Your task to perform on an android device: add a contact in the contacts app Image 0: 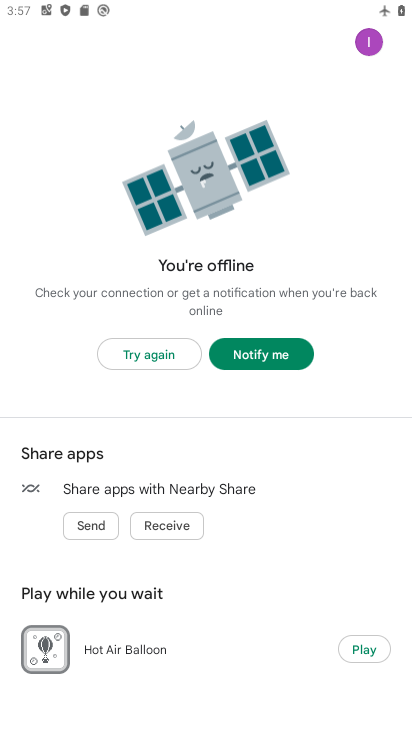
Step 0: press home button
Your task to perform on an android device: add a contact in the contacts app Image 1: 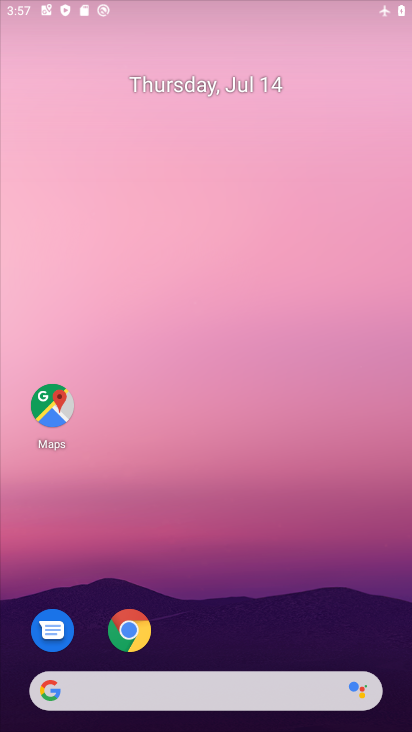
Step 1: drag from (251, 618) to (397, 25)
Your task to perform on an android device: add a contact in the contacts app Image 2: 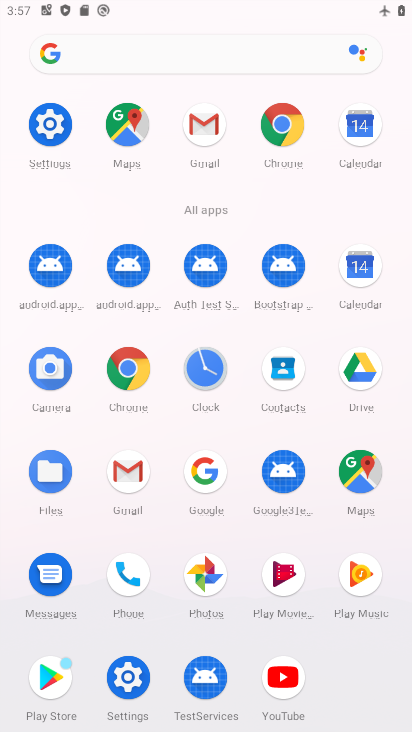
Step 2: click (290, 379)
Your task to perform on an android device: add a contact in the contacts app Image 3: 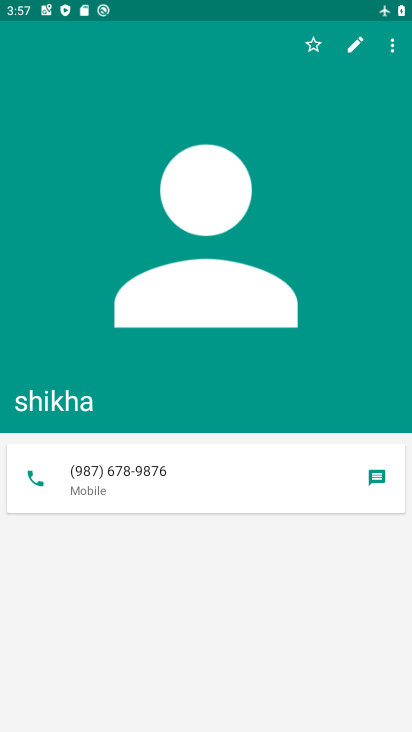
Step 3: press back button
Your task to perform on an android device: add a contact in the contacts app Image 4: 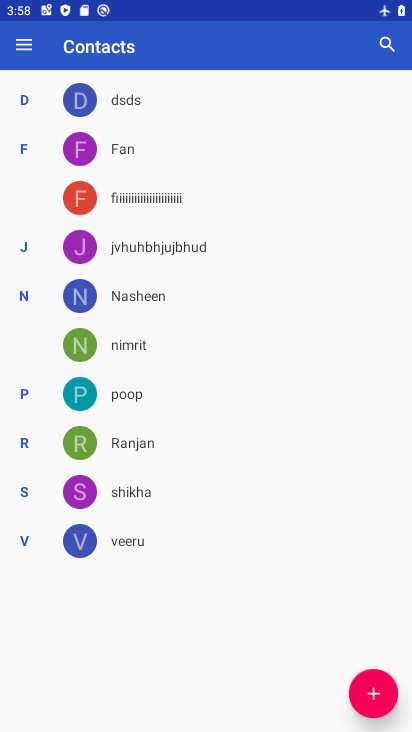
Step 4: click (371, 682)
Your task to perform on an android device: add a contact in the contacts app Image 5: 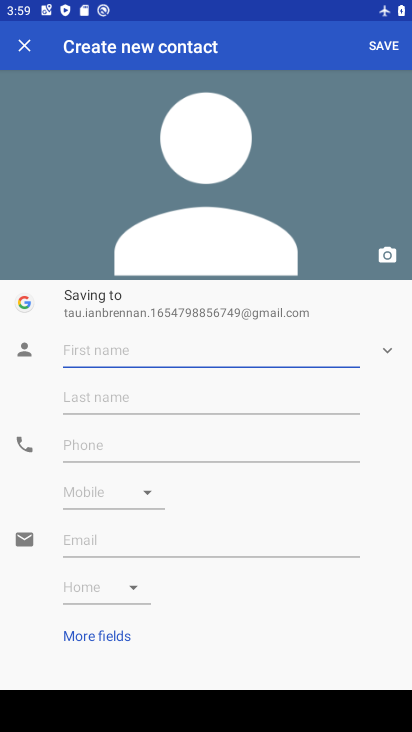
Step 5: type "himani"
Your task to perform on an android device: add a contact in the contacts app Image 6: 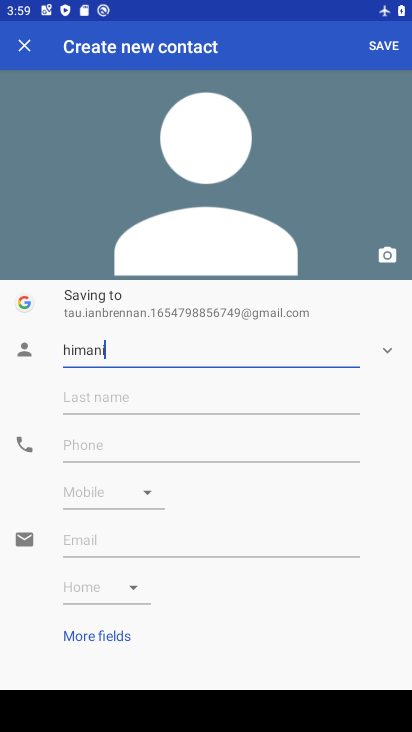
Step 6: click (141, 451)
Your task to perform on an android device: add a contact in the contacts app Image 7: 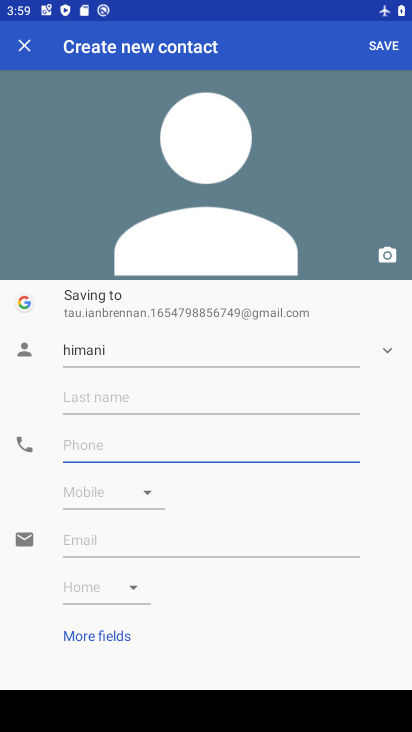
Step 7: type "8765678765"
Your task to perform on an android device: add a contact in the contacts app Image 8: 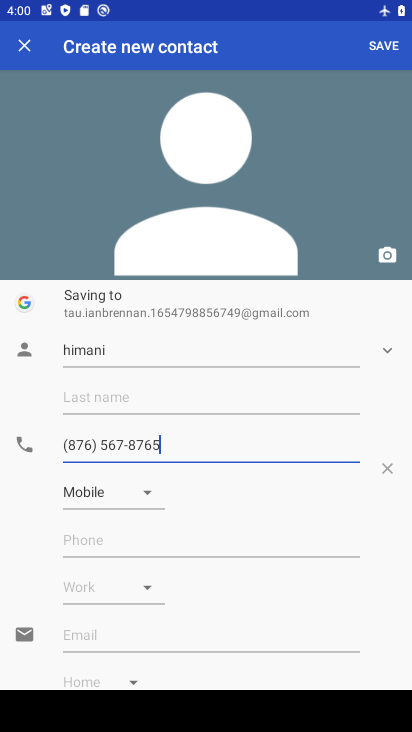
Step 8: click (374, 34)
Your task to perform on an android device: add a contact in the contacts app Image 9: 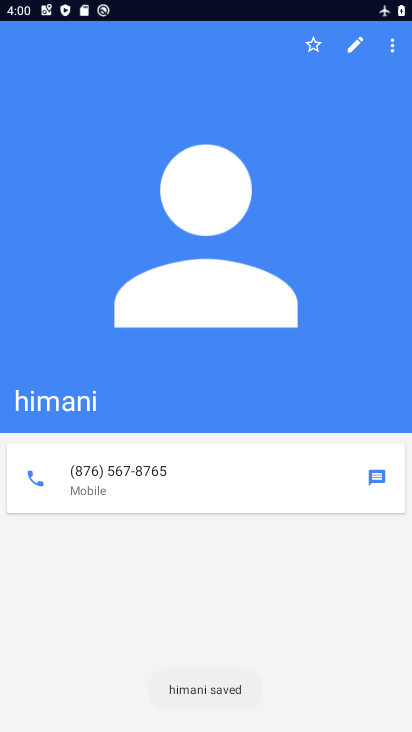
Step 9: task complete